Your task to perform on an android device: allow cookies in the chrome app Image 0: 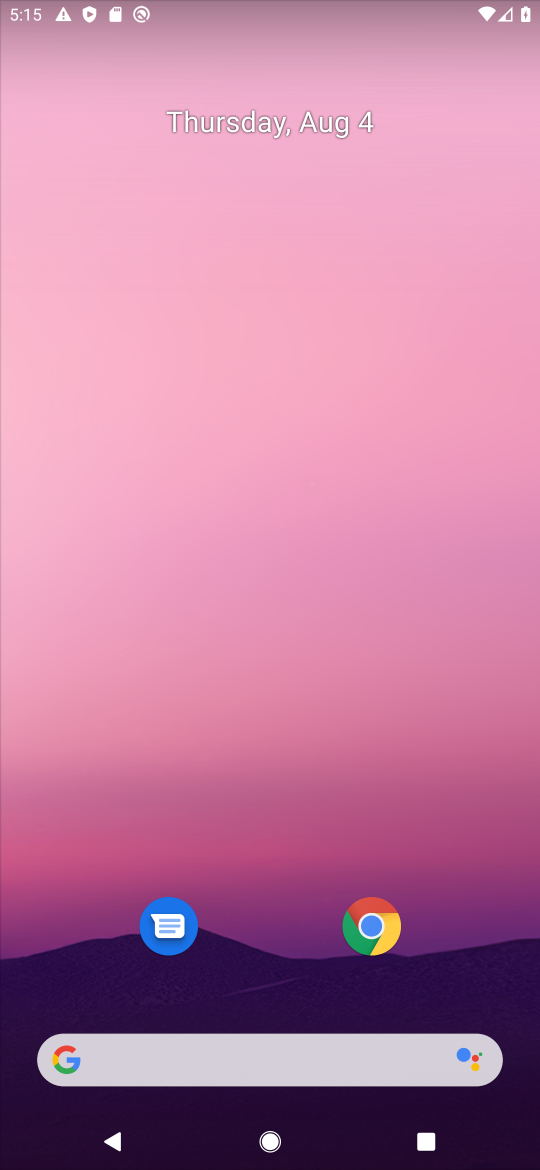
Step 0: click (391, 924)
Your task to perform on an android device: allow cookies in the chrome app Image 1: 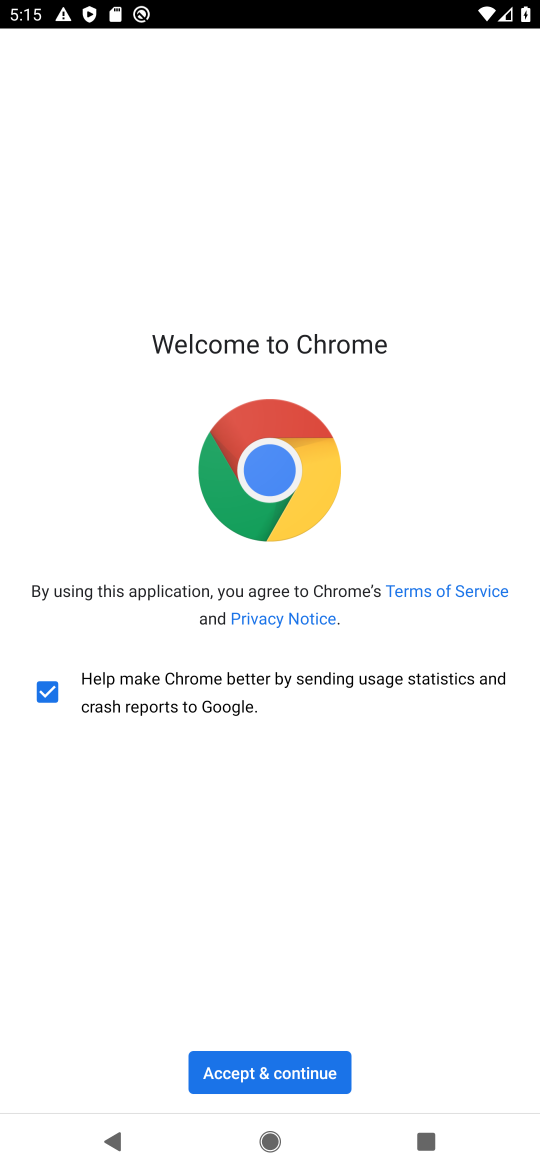
Step 1: click (308, 1062)
Your task to perform on an android device: allow cookies in the chrome app Image 2: 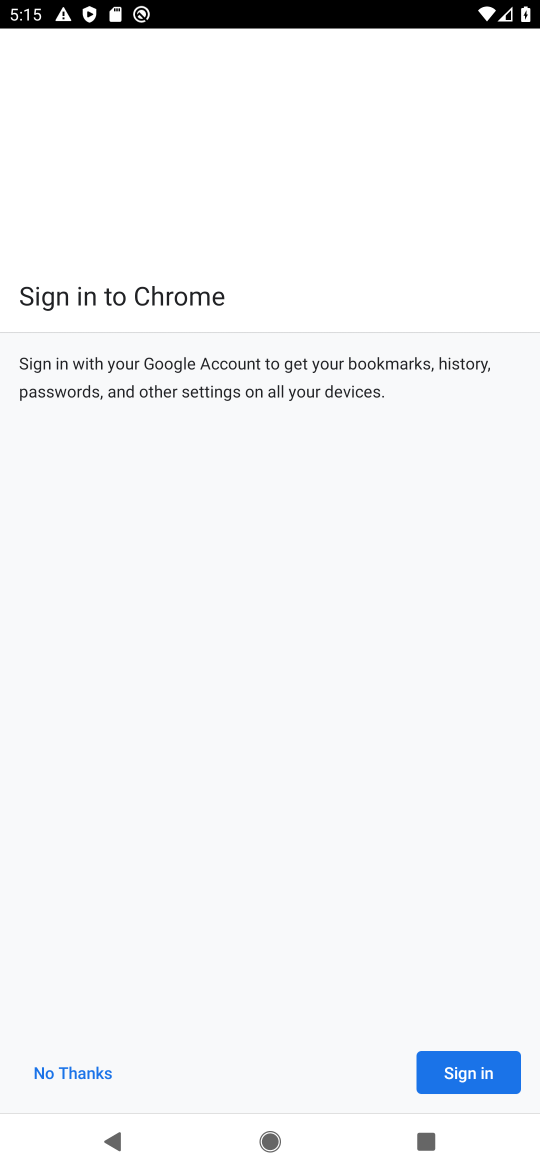
Step 2: click (61, 1069)
Your task to perform on an android device: allow cookies in the chrome app Image 3: 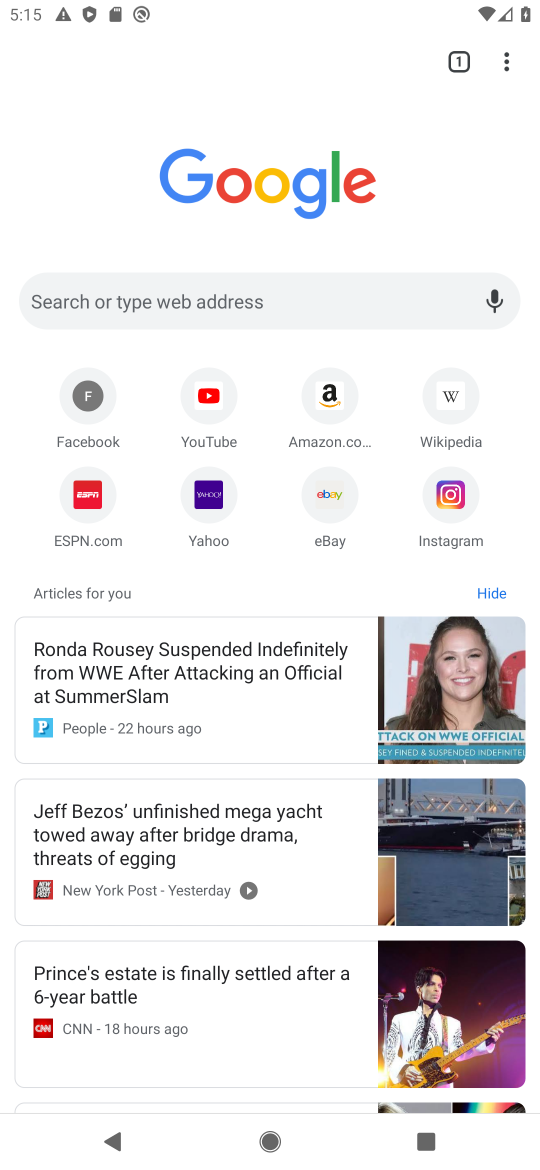
Step 3: click (503, 72)
Your task to perform on an android device: allow cookies in the chrome app Image 4: 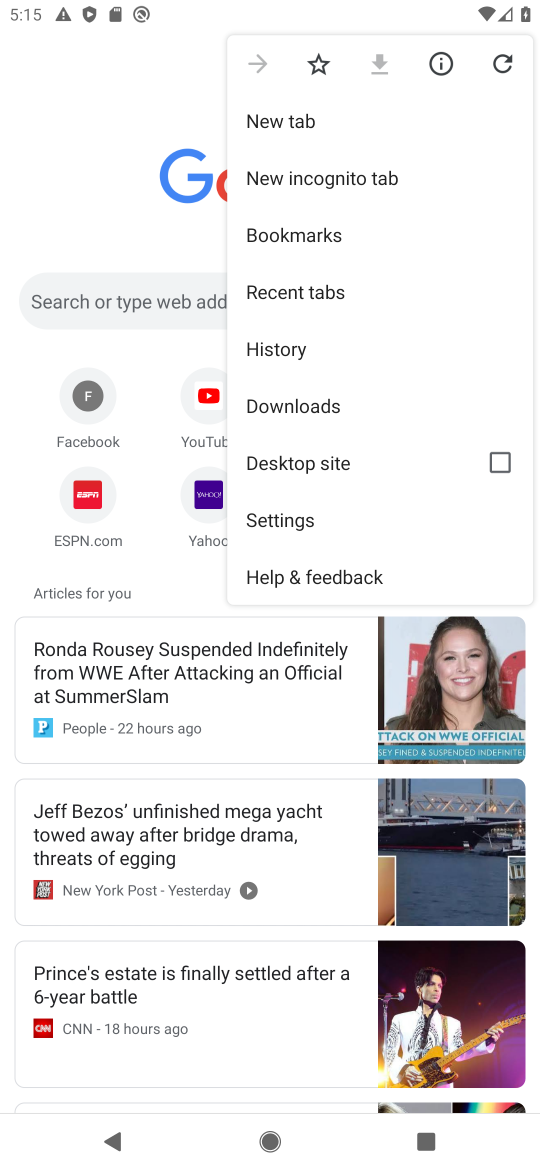
Step 4: click (314, 517)
Your task to perform on an android device: allow cookies in the chrome app Image 5: 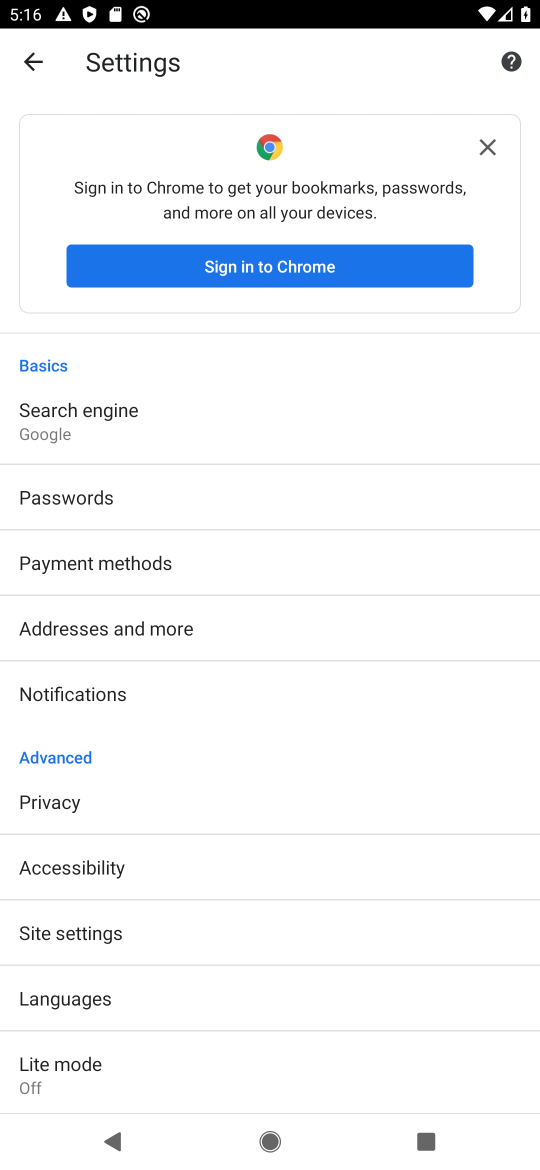
Step 5: click (163, 943)
Your task to perform on an android device: allow cookies in the chrome app Image 6: 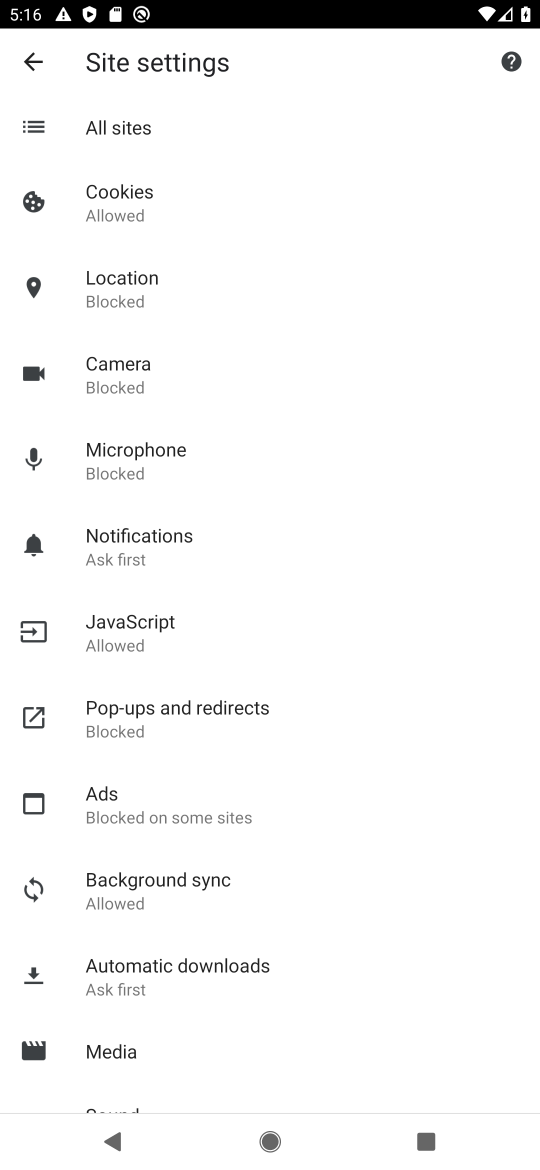
Step 6: click (213, 213)
Your task to perform on an android device: allow cookies in the chrome app Image 7: 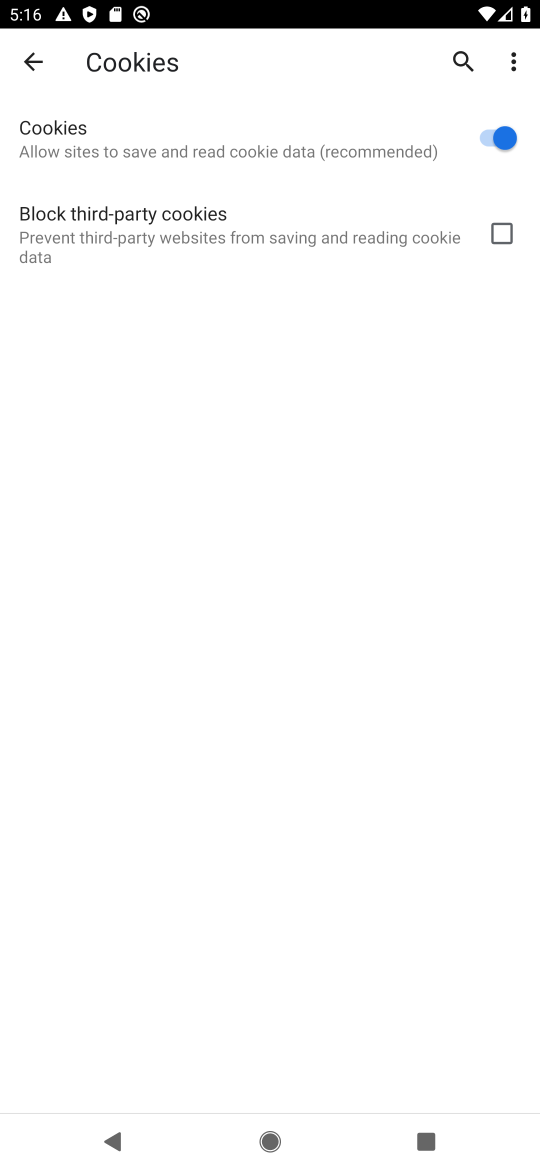
Step 7: task complete